Your task to perform on an android device: open app "Microsoft Outlook" (install if not already installed) Image 0: 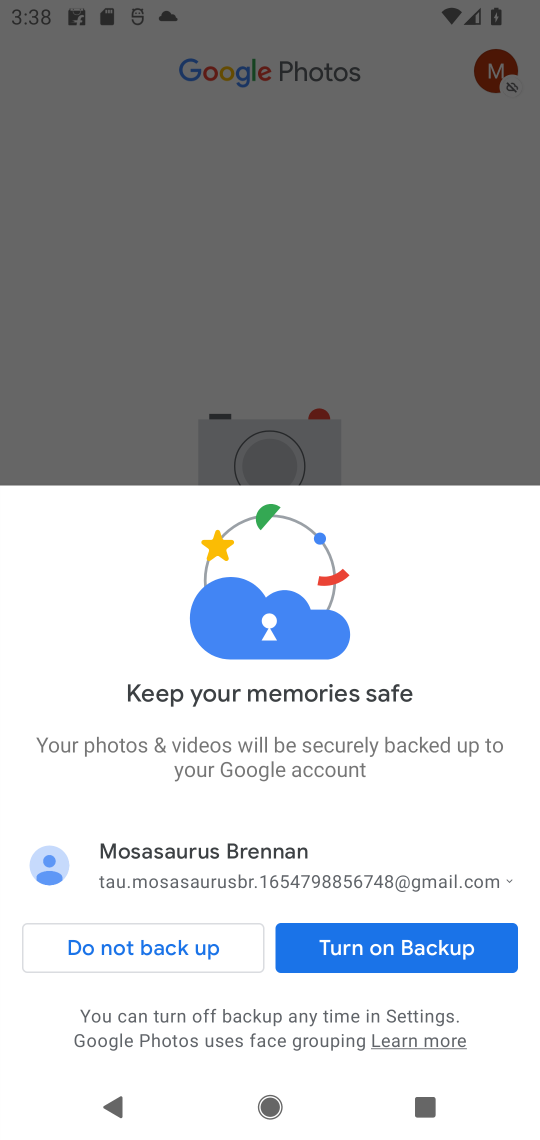
Step 0: press home button
Your task to perform on an android device: open app "Microsoft Outlook" (install if not already installed) Image 1: 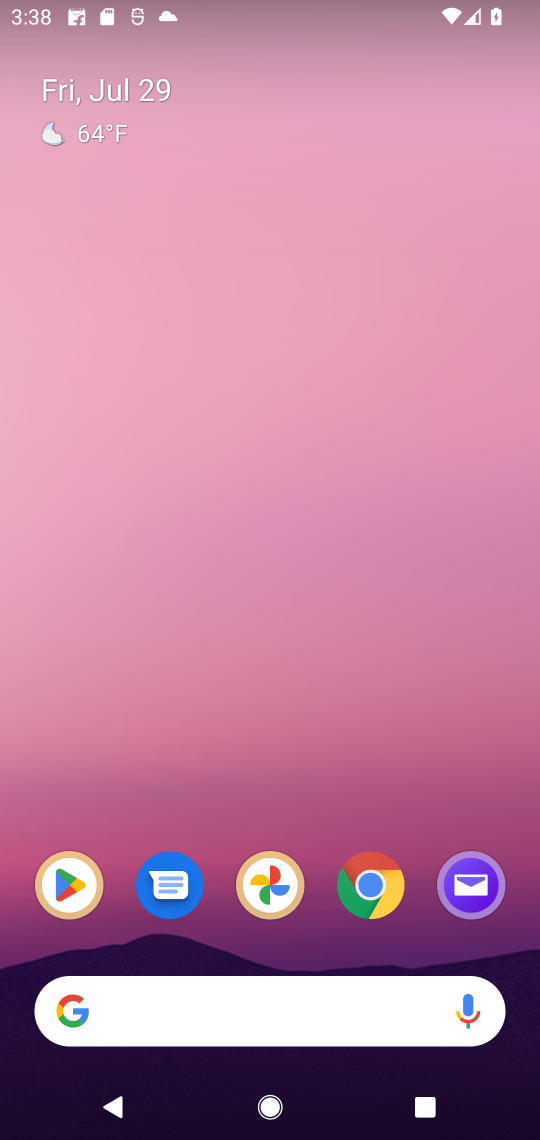
Step 1: click (67, 881)
Your task to perform on an android device: open app "Microsoft Outlook" (install if not already installed) Image 2: 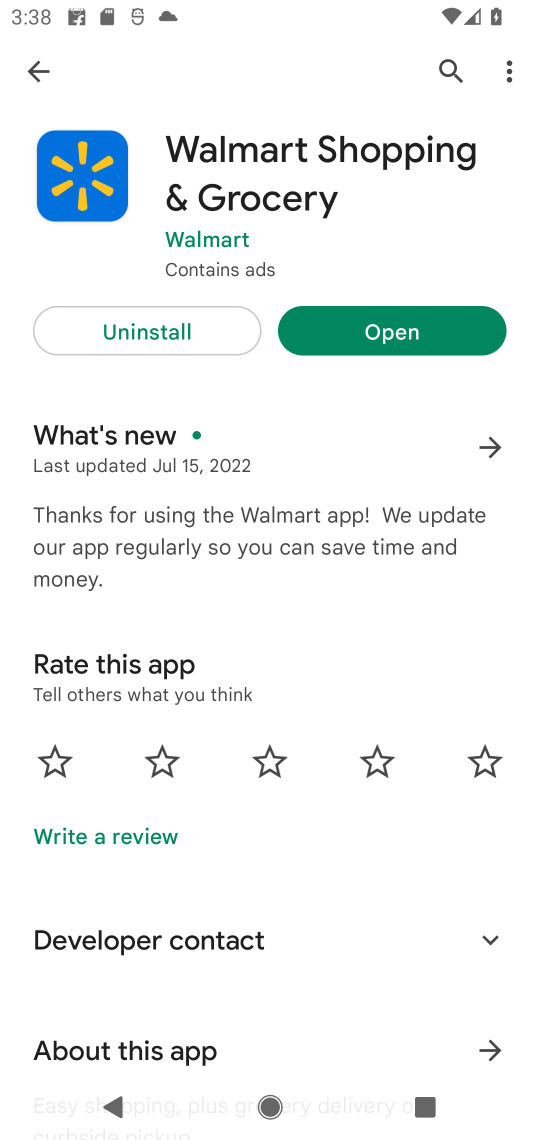
Step 2: click (436, 52)
Your task to perform on an android device: open app "Microsoft Outlook" (install if not already installed) Image 3: 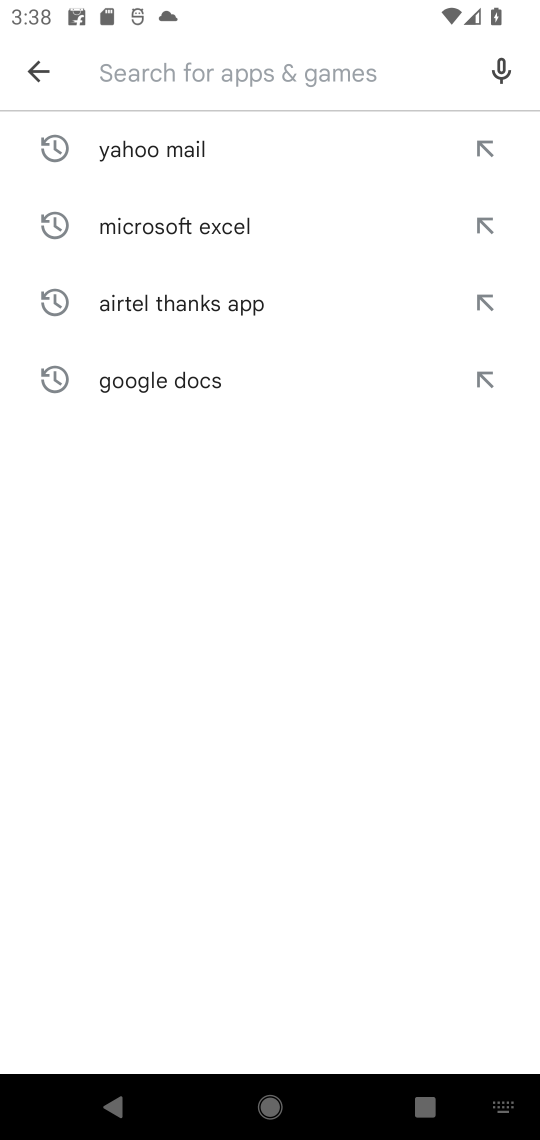
Step 3: click (437, 85)
Your task to perform on an android device: open app "Microsoft Outlook" (install if not already installed) Image 4: 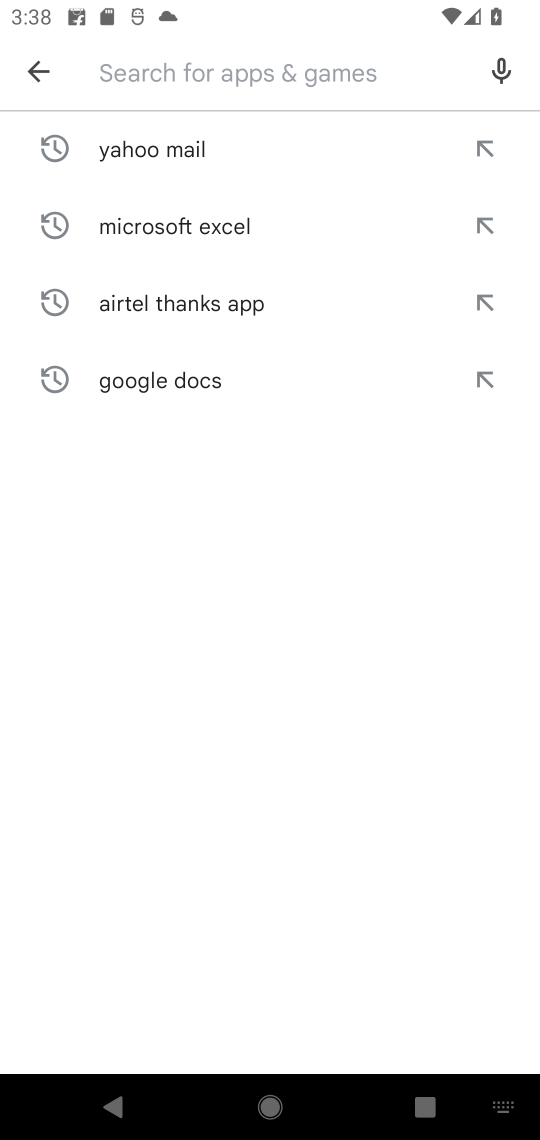
Step 4: type "Microsoft Outlook"
Your task to perform on an android device: open app "Microsoft Outlook" (install if not already installed) Image 5: 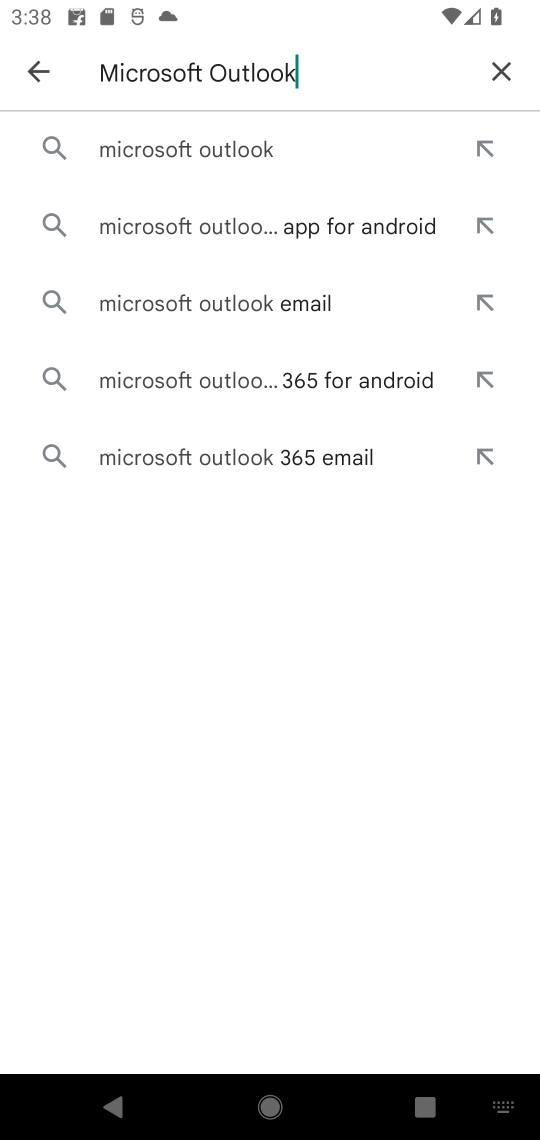
Step 5: click (268, 149)
Your task to perform on an android device: open app "Microsoft Outlook" (install if not already installed) Image 6: 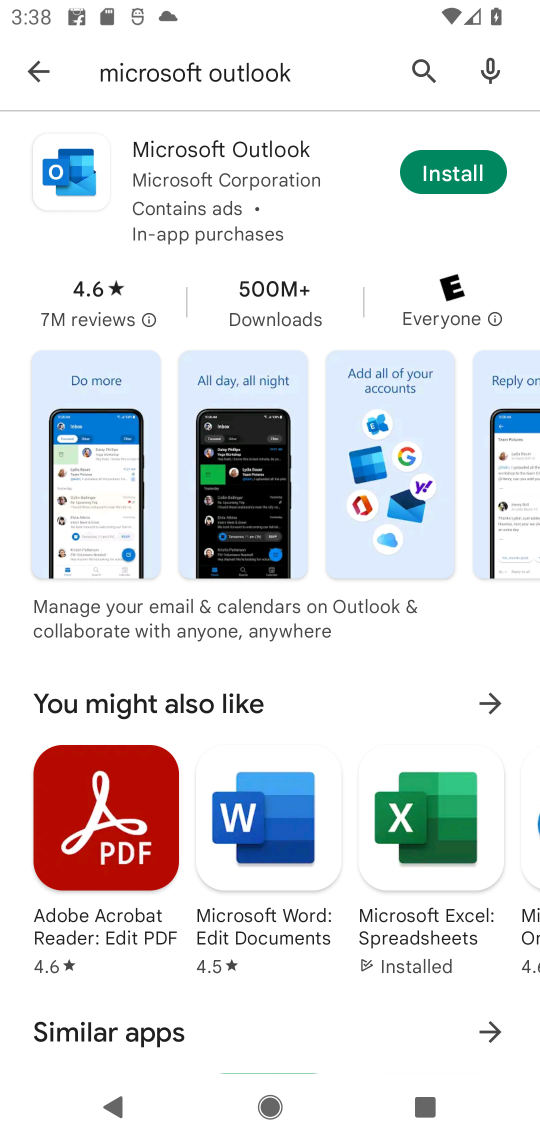
Step 6: click (452, 173)
Your task to perform on an android device: open app "Microsoft Outlook" (install if not already installed) Image 7: 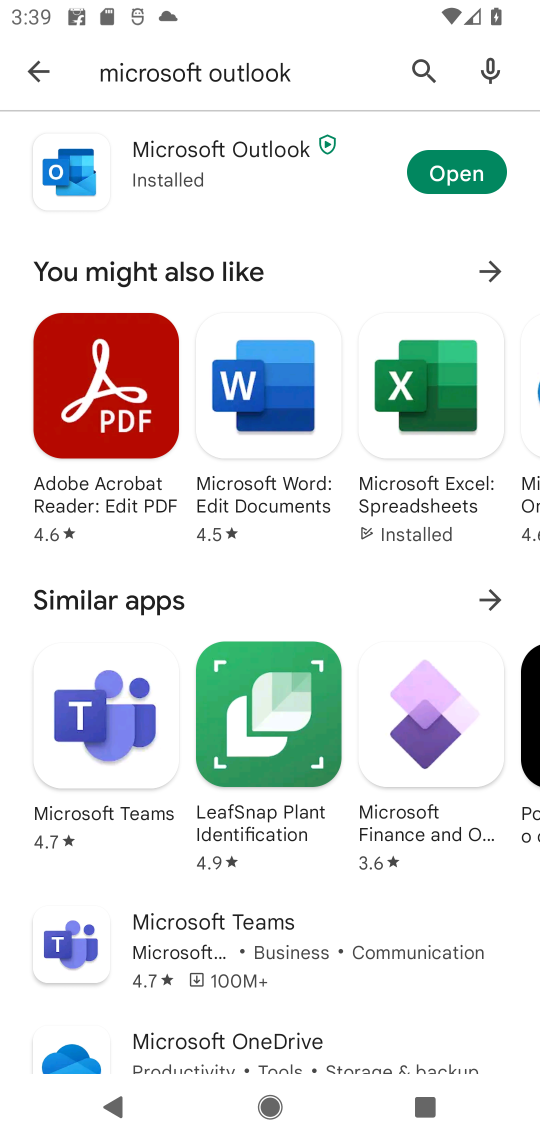
Step 7: click (452, 173)
Your task to perform on an android device: open app "Microsoft Outlook" (install if not already installed) Image 8: 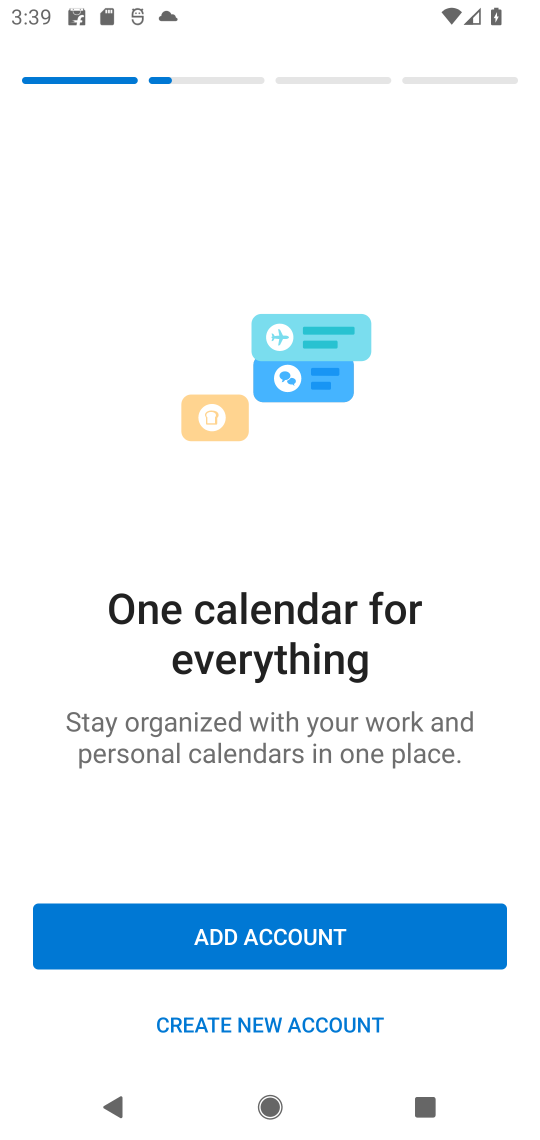
Step 8: task complete